Your task to perform on an android device: Open Yahoo.com Image 0: 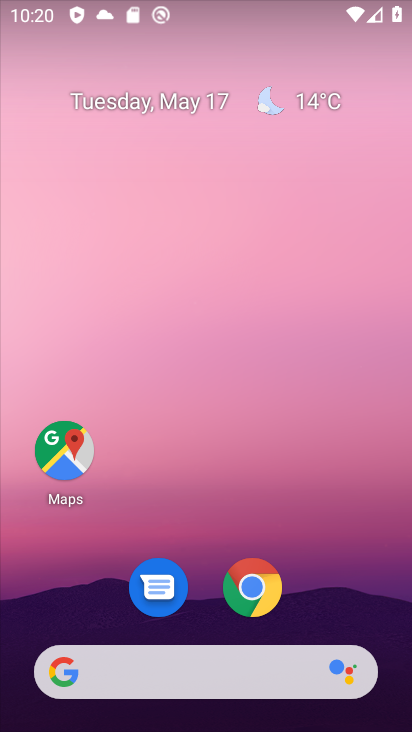
Step 0: click (253, 591)
Your task to perform on an android device: Open Yahoo.com Image 1: 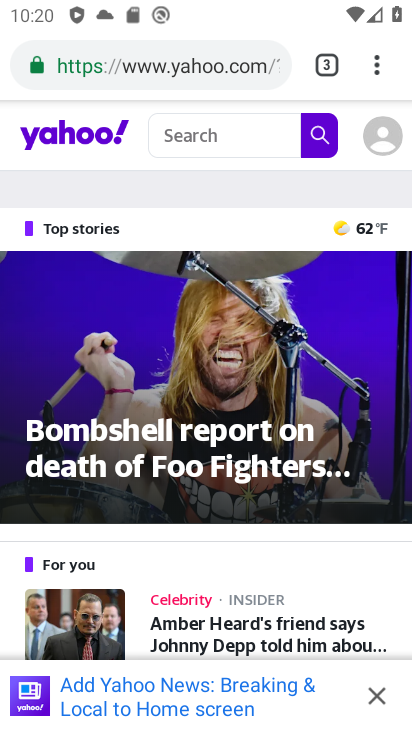
Step 1: task complete